Your task to perform on an android device: turn on the 12-hour format for clock Image 0: 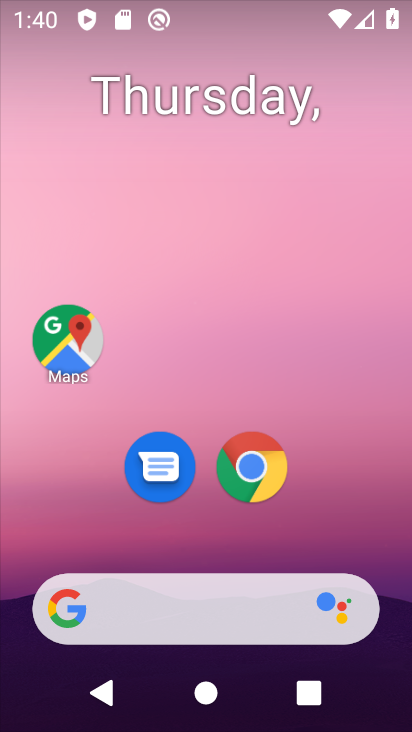
Step 0: drag from (389, 527) to (320, 31)
Your task to perform on an android device: turn on the 12-hour format for clock Image 1: 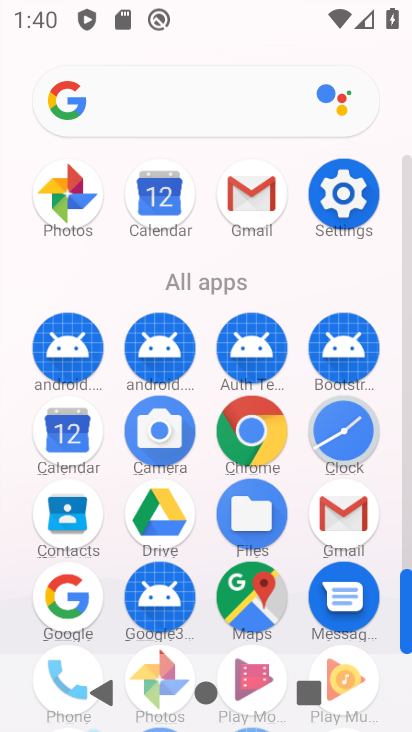
Step 1: click (348, 204)
Your task to perform on an android device: turn on the 12-hour format for clock Image 2: 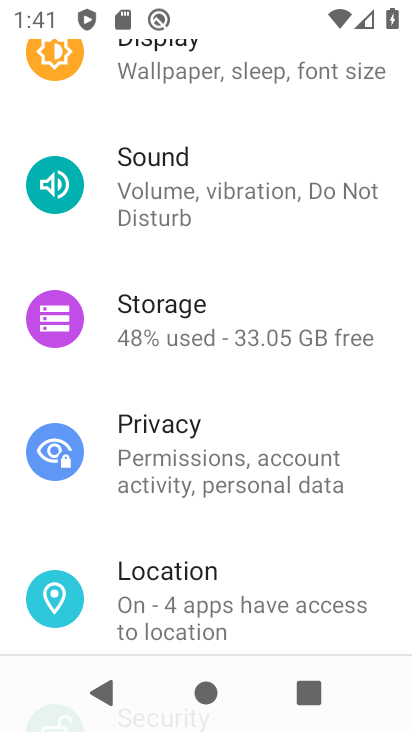
Step 2: drag from (265, 523) to (214, 100)
Your task to perform on an android device: turn on the 12-hour format for clock Image 3: 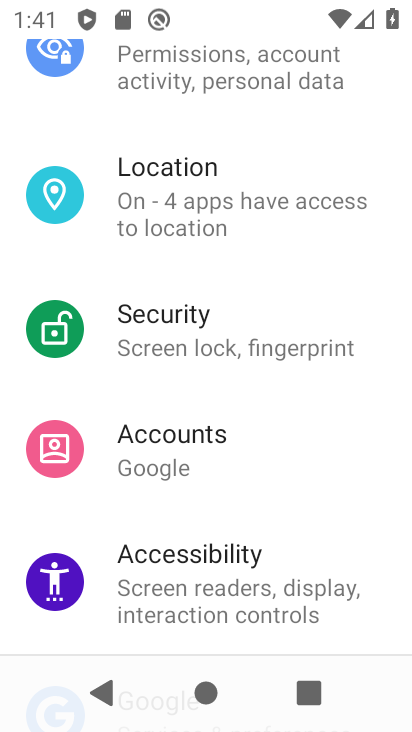
Step 3: drag from (283, 539) to (239, 48)
Your task to perform on an android device: turn on the 12-hour format for clock Image 4: 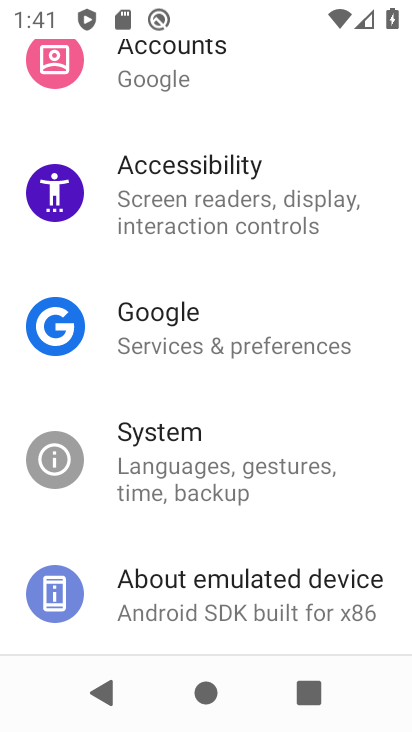
Step 4: click (197, 490)
Your task to perform on an android device: turn on the 12-hour format for clock Image 5: 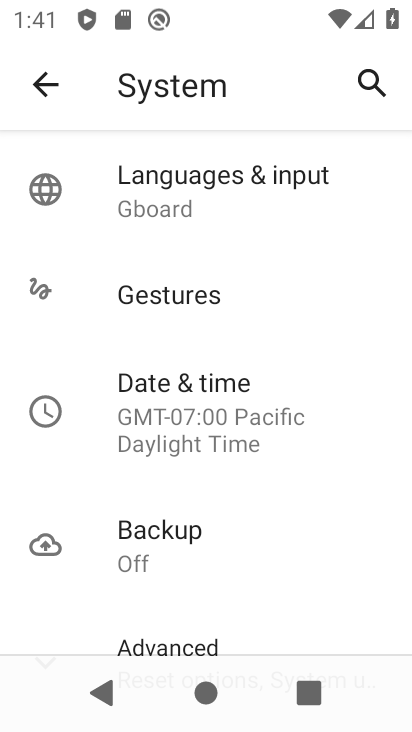
Step 5: click (176, 405)
Your task to perform on an android device: turn on the 12-hour format for clock Image 6: 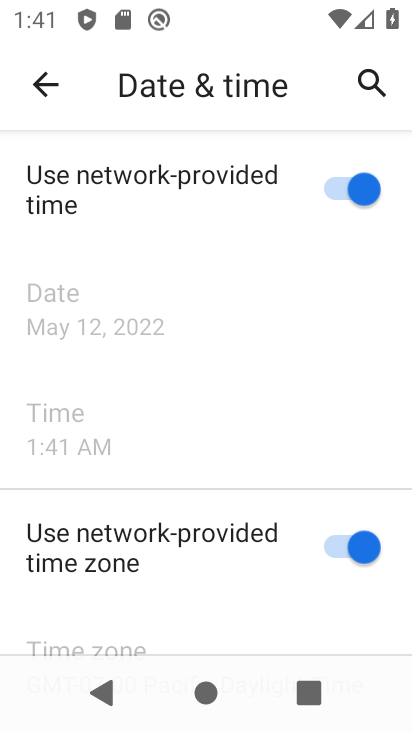
Step 6: task complete